Your task to perform on an android device: Search for Italian restaurants on Maps Image 0: 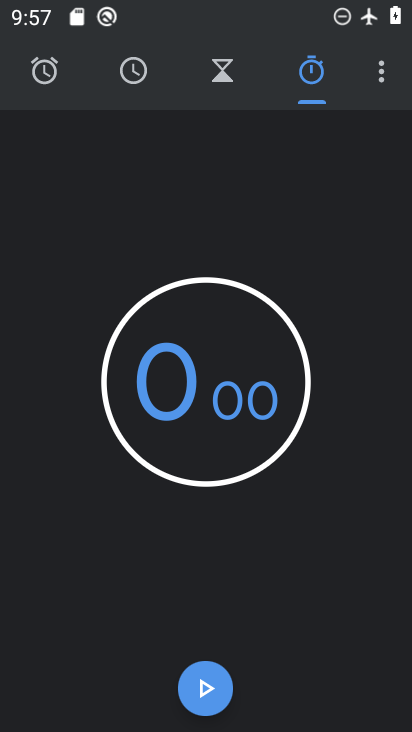
Step 0: press home button
Your task to perform on an android device: Search for Italian restaurants on Maps Image 1: 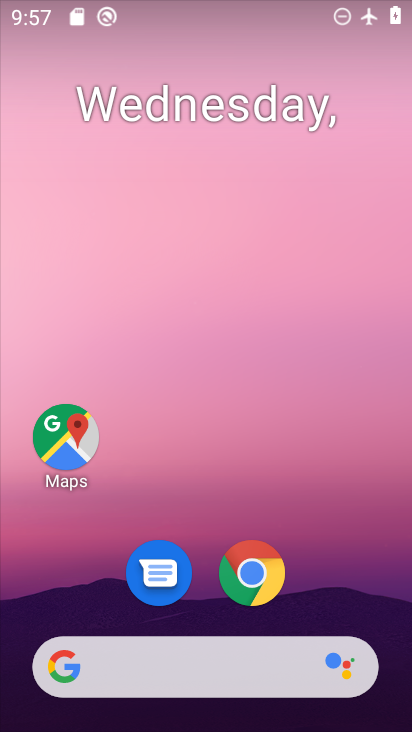
Step 1: click (63, 436)
Your task to perform on an android device: Search for Italian restaurants on Maps Image 2: 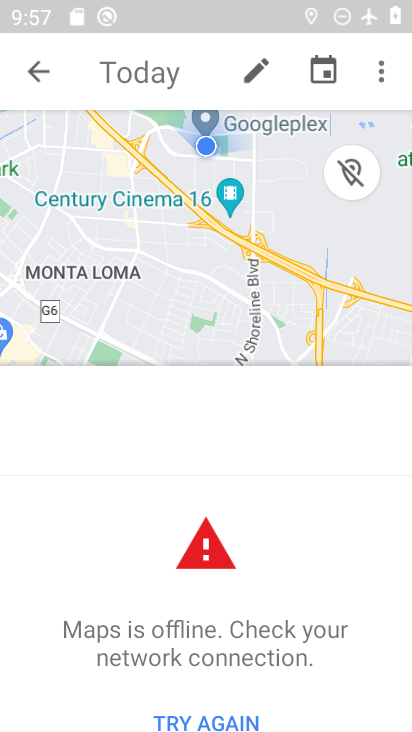
Step 2: click (178, 67)
Your task to perform on an android device: Search for Italian restaurants on Maps Image 3: 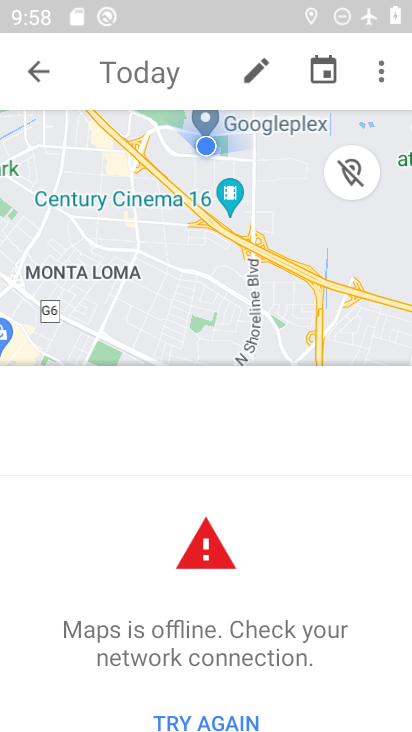
Step 3: type "Italian restaurants"
Your task to perform on an android device: Search for Italian restaurants on Maps Image 4: 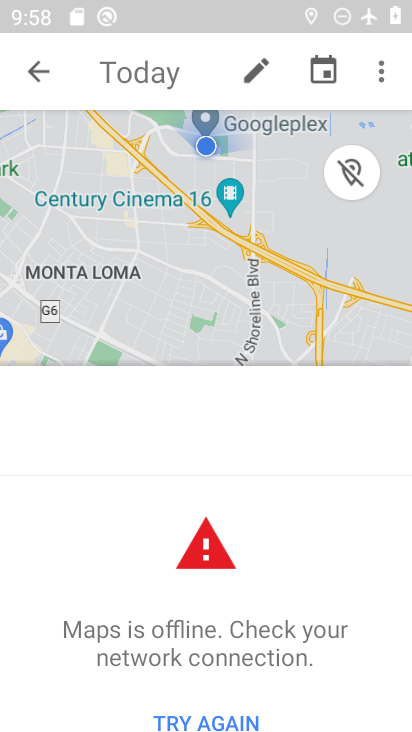
Step 4: click (66, 76)
Your task to perform on an android device: Search for Italian restaurants on Maps Image 5: 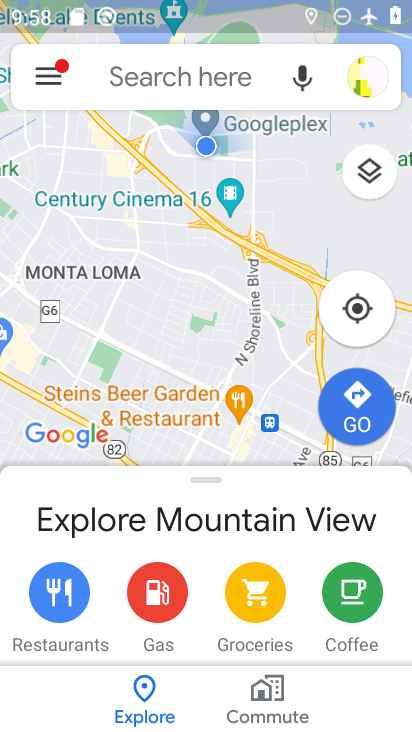
Step 5: task complete